Your task to perform on an android device: turn on sleep mode Image 0: 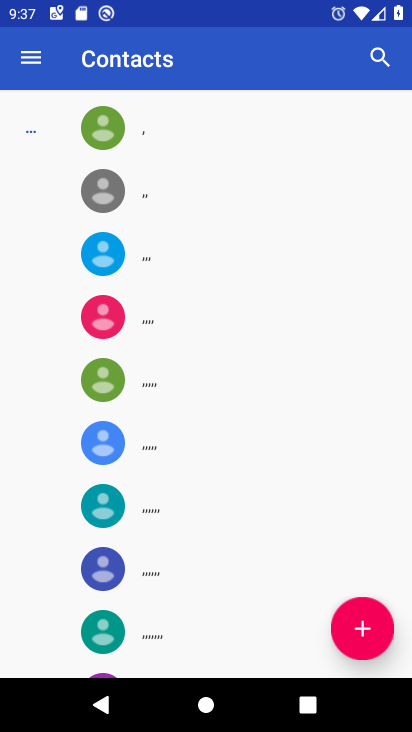
Step 0: press home button
Your task to perform on an android device: turn on sleep mode Image 1: 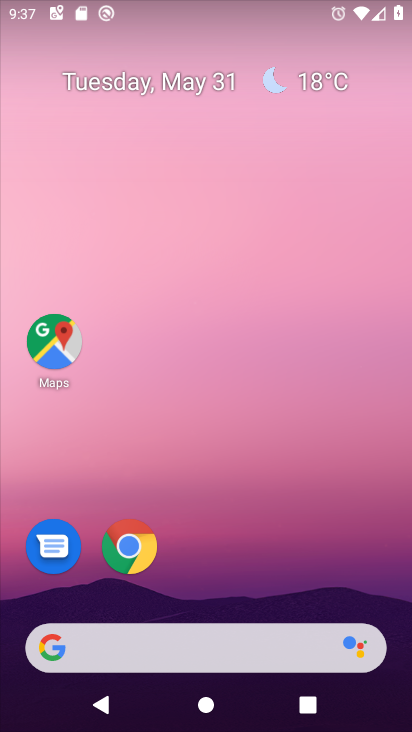
Step 1: drag from (283, 561) to (293, 87)
Your task to perform on an android device: turn on sleep mode Image 2: 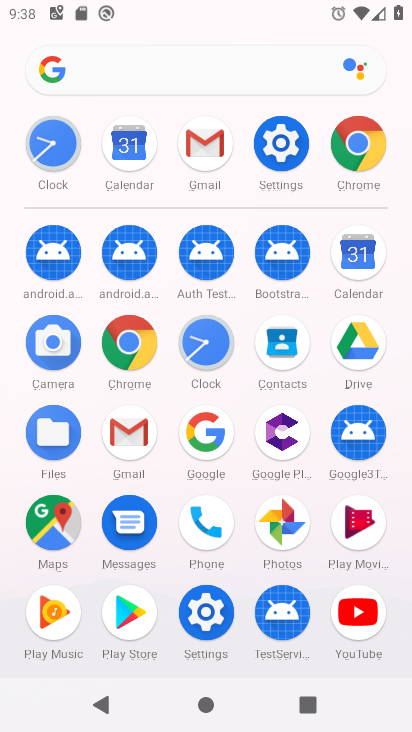
Step 2: click (285, 173)
Your task to perform on an android device: turn on sleep mode Image 3: 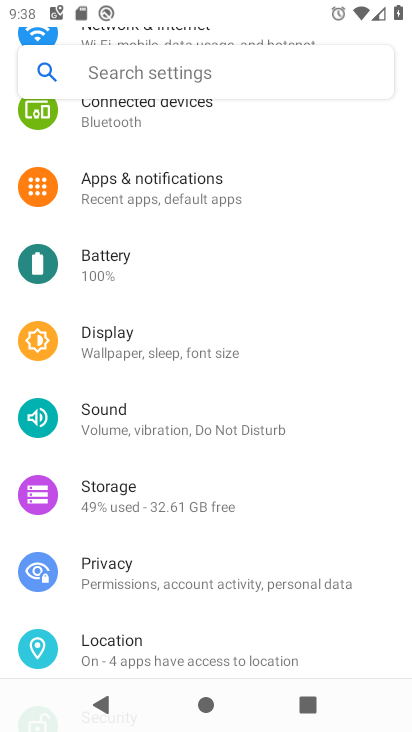
Step 3: click (170, 67)
Your task to perform on an android device: turn on sleep mode Image 4: 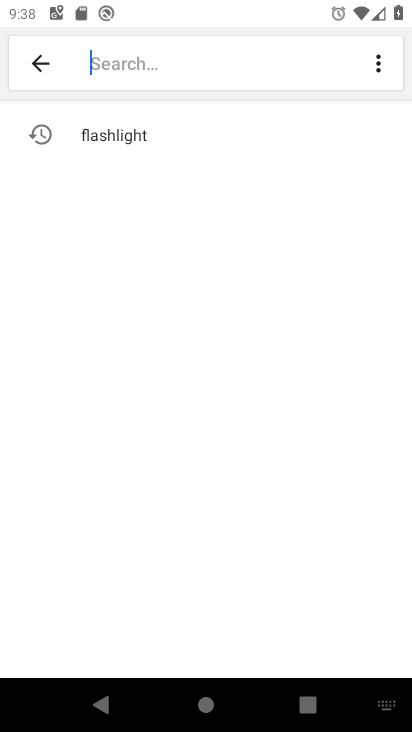
Step 4: type "sleep mode"
Your task to perform on an android device: turn on sleep mode Image 5: 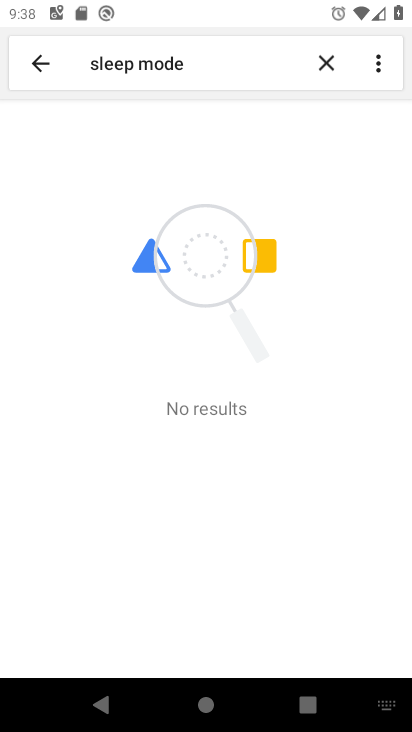
Step 5: task complete